Your task to perform on an android device: turn off improve location accuracy Image 0: 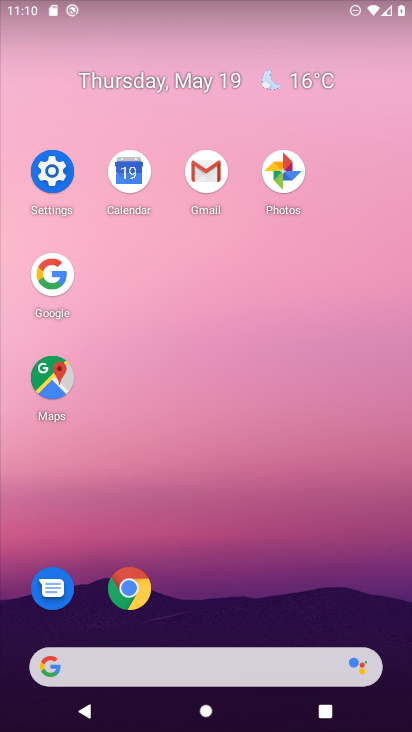
Step 0: click (57, 171)
Your task to perform on an android device: turn off improve location accuracy Image 1: 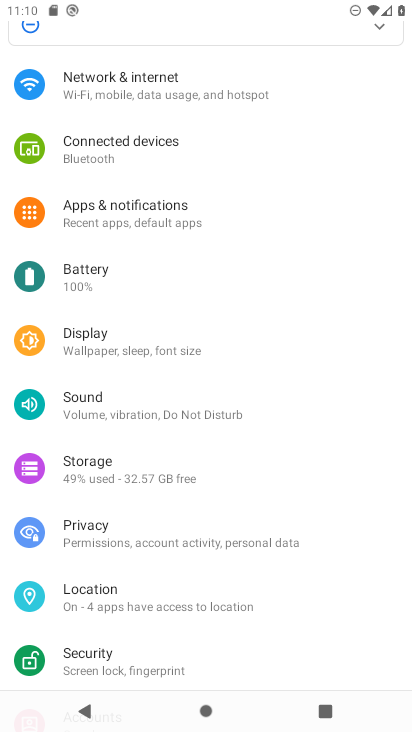
Step 1: click (206, 607)
Your task to perform on an android device: turn off improve location accuracy Image 2: 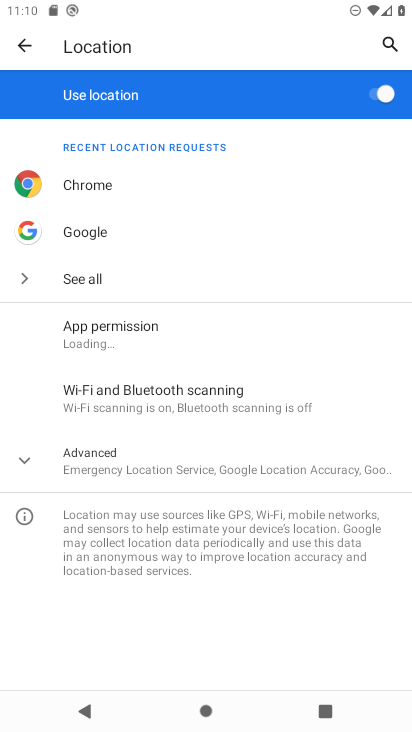
Step 2: click (156, 447)
Your task to perform on an android device: turn off improve location accuracy Image 3: 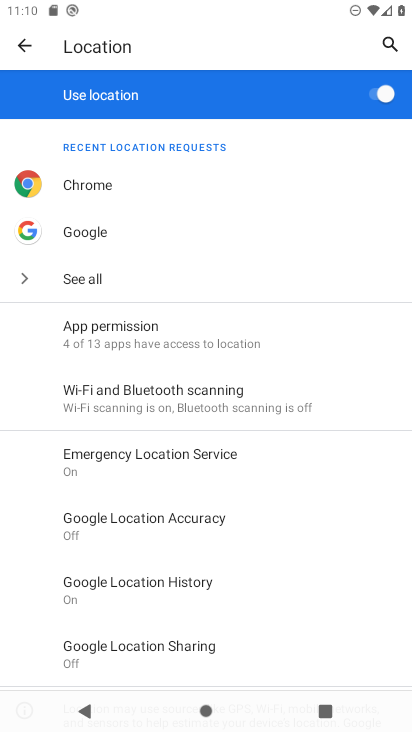
Step 3: click (196, 517)
Your task to perform on an android device: turn off improve location accuracy Image 4: 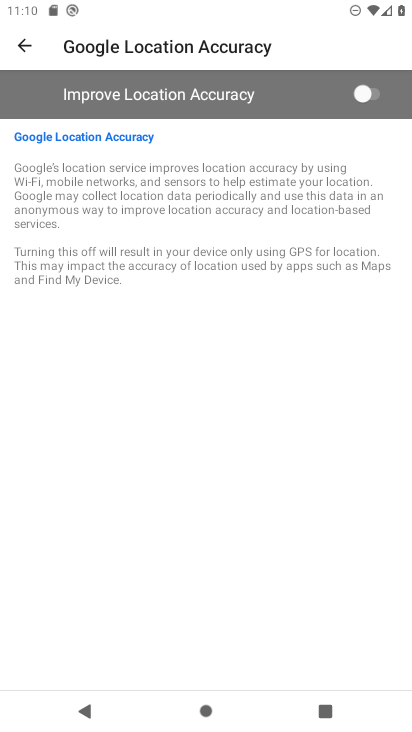
Step 4: task complete